Your task to perform on an android device: delete a single message in the gmail app Image 0: 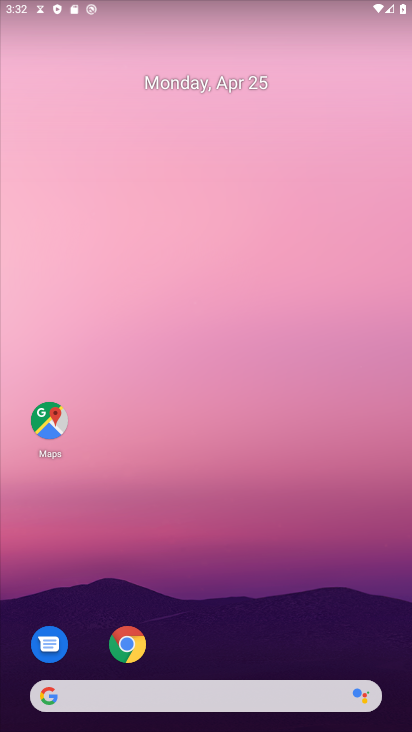
Step 0: drag from (222, 346) to (214, 99)
Your task to perform on an android device: delete a single message in the gmail app Image 1: 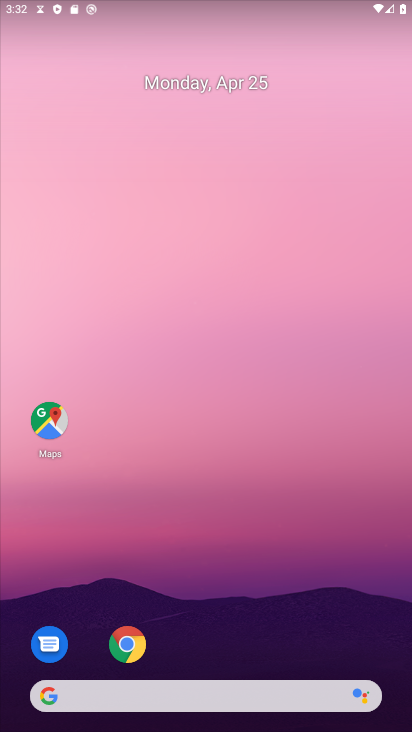
Step 1: drag from (222, 643) to (229, 62)
Your task to perform on an android device: delete a single message in the gmail app Image 2: 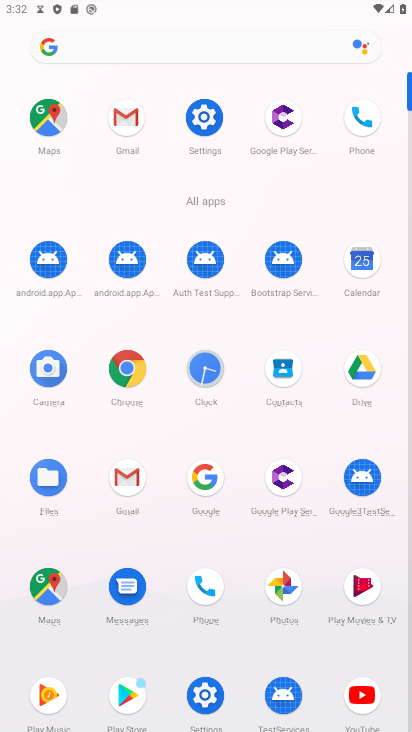
Step 2: click (123, 473)
Your task to perform on an android device: delete a single message in the gmail app Image 3: 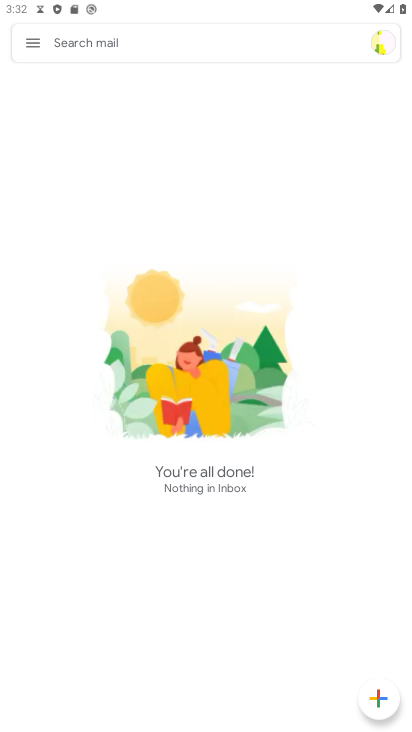
Step 3: click (31, 36)
Your task to perform on an android device: delete a single message in the gmail app Image 4: 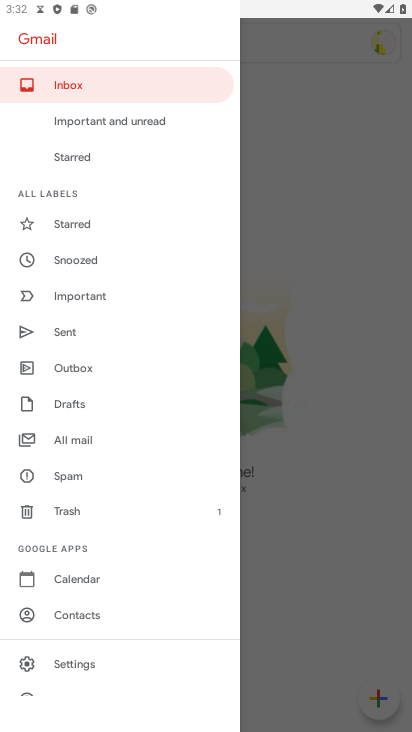
Step 4: click (89, 432)
Your task to perform on an android device: delete a single message in the gmail app Image 5: 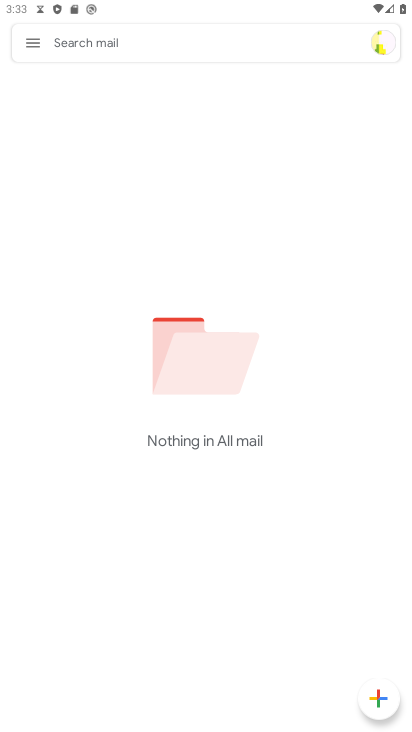
Step 5: task complete